Your task to perform on an android device: Open calendar and show me the fourth week of next month Image 0: 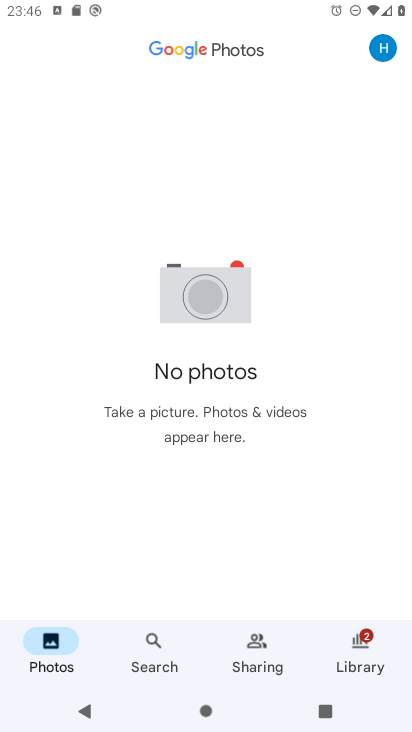
Step 0: press home button
Your task to perform on an android device: Open calendar and show me the fourth week of next month Image 1: 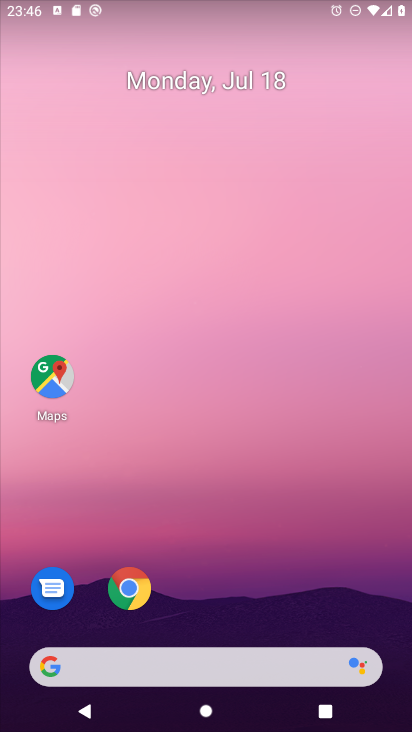
Step 1: drag from (408, 627) to (315, 76)
Your task to perform on an android device: Open calendar and show me the fourth week of next month Image 2: 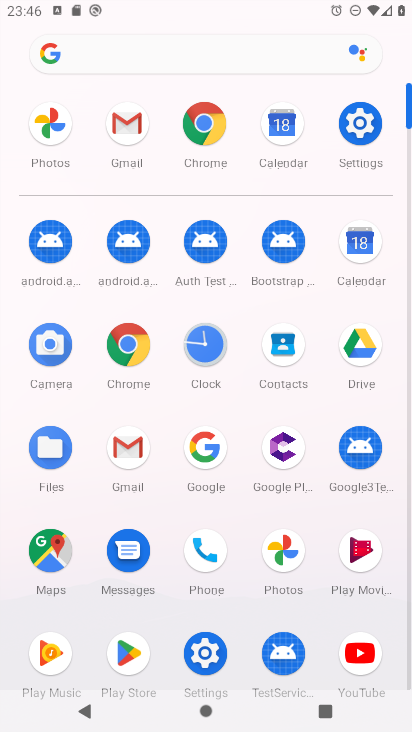
Step 2: click (360, 245)
Your task to perform on an android device: Open calendar and show me the fourth week of next month Image 3: 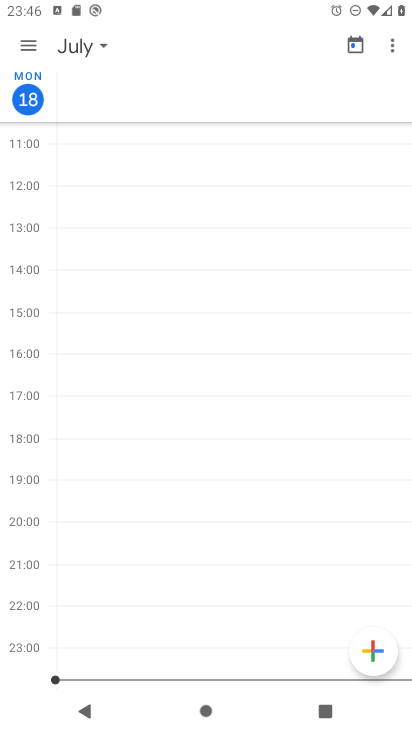
Step 3: click (30, 50)
Your task to perform on an android device: Open calendar and show me the fourth week of next month Image 4: 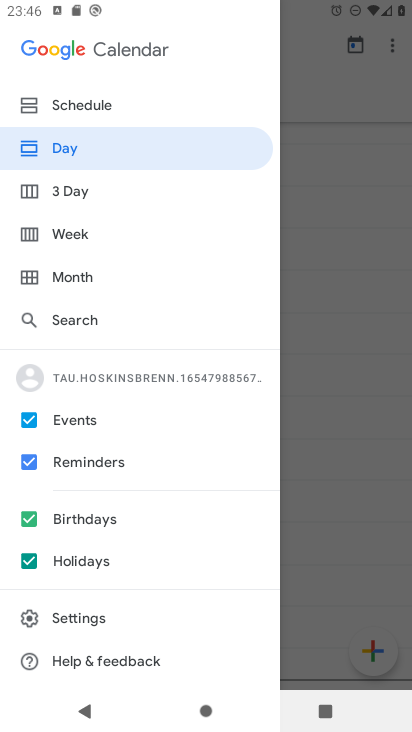
Step 4: click (69, 236)
Your task to perform on an android device: Open calendar and show me the fourth week of next month Image 5: 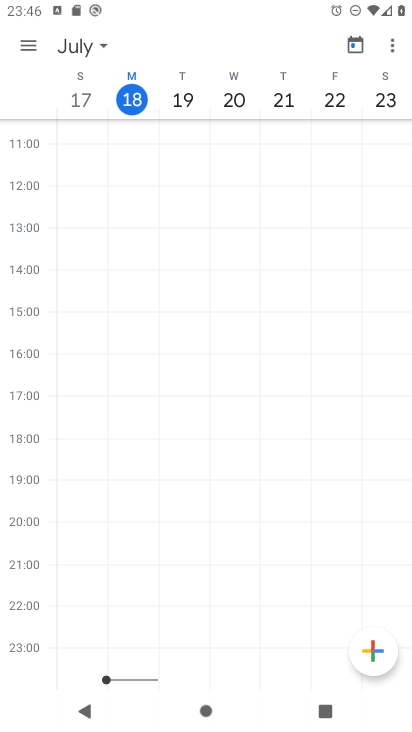
Step 5: click (99, 45)
Your task to perform on an android device: Open calendar and show me the fourth week of next month Image 6: 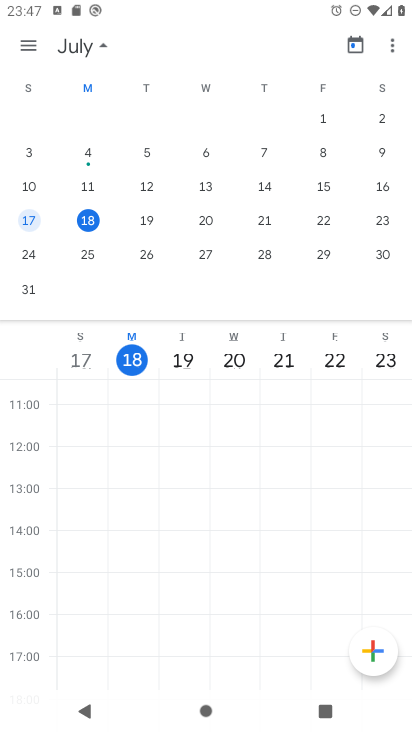
Step 6: drag from (390, 245) to (3, 219)
Your task to perform on an android device: Open calendar and show me the fourth week of next month Image 7: 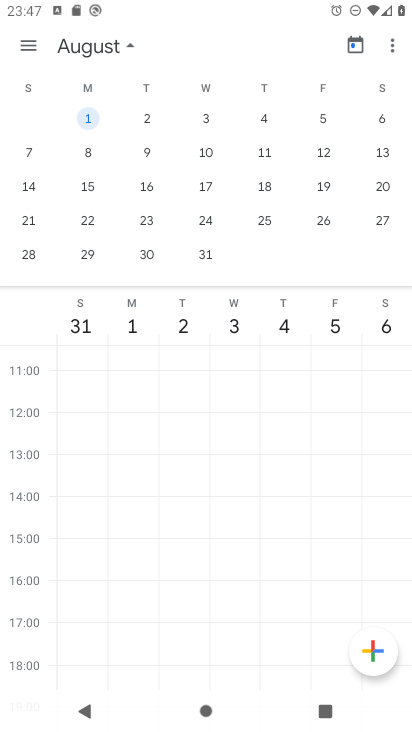
Step 7: click (28, 254)
Your task to perform on an android device: Open calendar and show me the fourth week of next month Image 8: 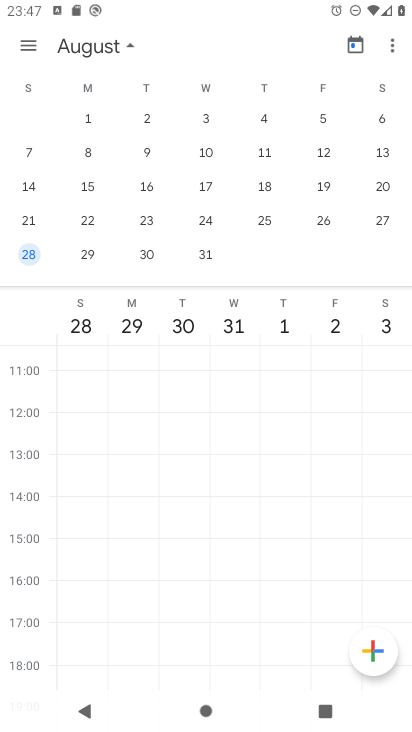
Step 8: task complete